Your task to perform on an android device: Is it going to rain today? Image 0: 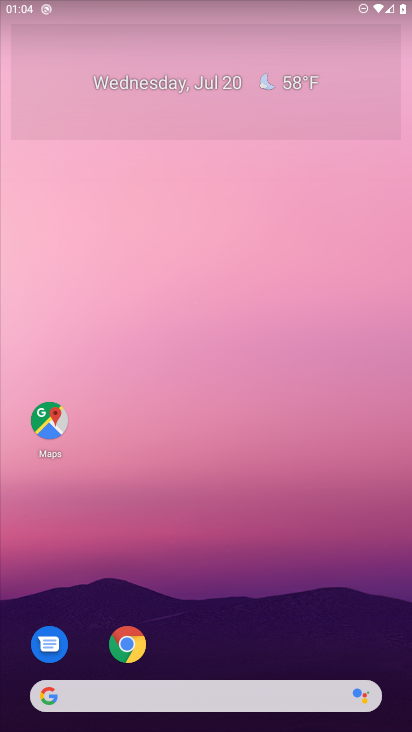
Step 0: click (118, 699)
Your task to perform on an android device: Is it going to rain today? Image 1: 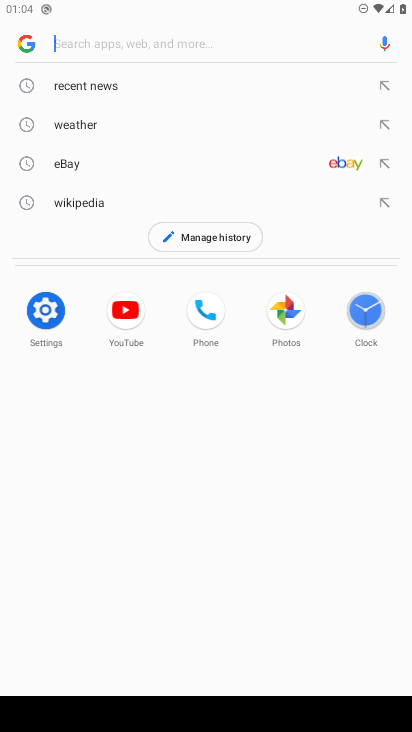
Step 1: drag from (144, 727) to (215, 499)
Your task to perform on an android device: Is it going to rain today? Image 2: 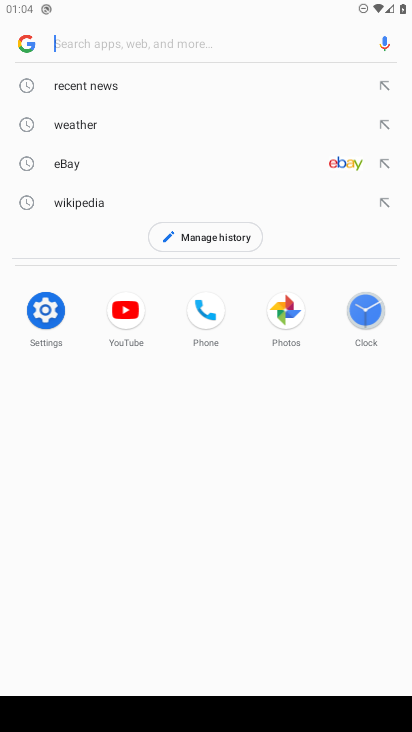
Step 2: type "Is it going to rain today?"
Your task to perform on an android device: Is it going to rain today? Image 3: 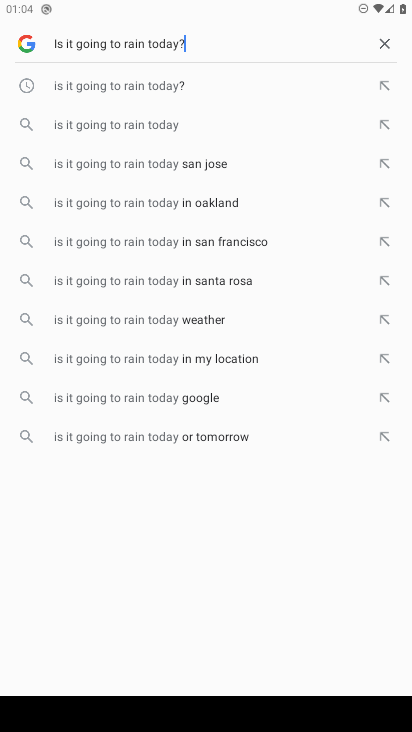
Step 3: type ""
Your task to perform on an android device: Is it going to rain today? Image 4: 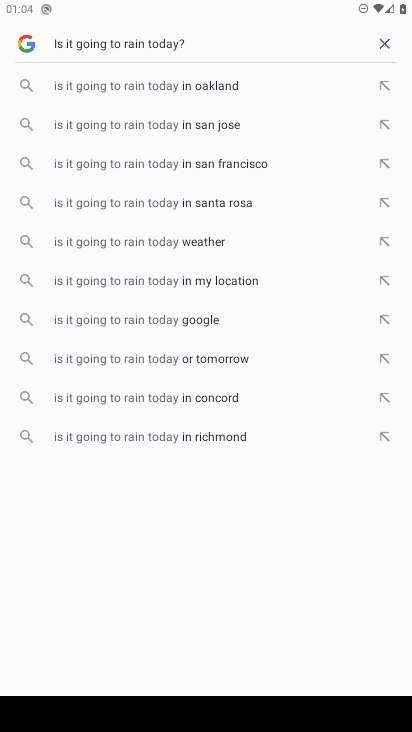
Step 4: type ""
Your task to perform on an android device: Is it going to rain today? Image 5: 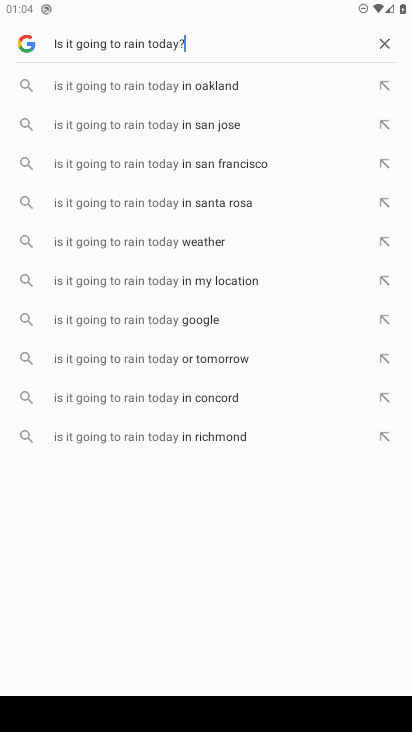
Step 5: type ""
Your task to perform on an android device: Is it going to rain today? Image 6: 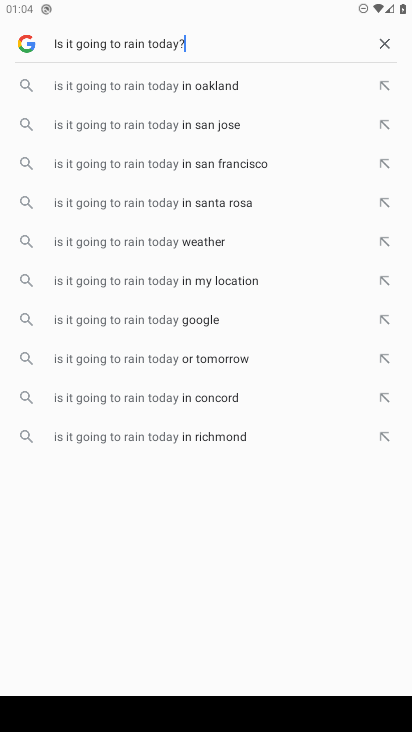
Step 6: task complete